Your task to perform on an android device: toggle pop-ups in chrome Image 0: 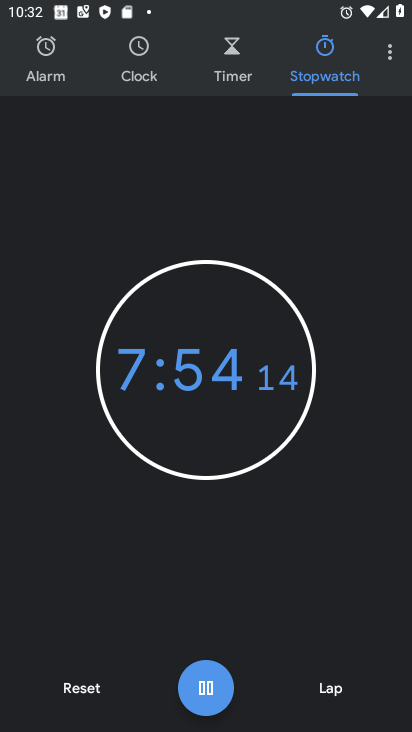
Step 0: click (85, 683)
Your task to perform on an android device: toggle pop-ups in chrome Image 1: 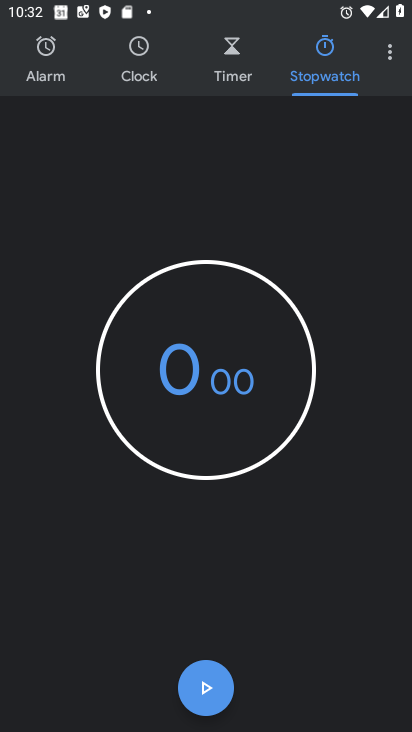
Step 1: press home button
Your task to perform on an android device: toggle pop-ups in chrome Image 2: 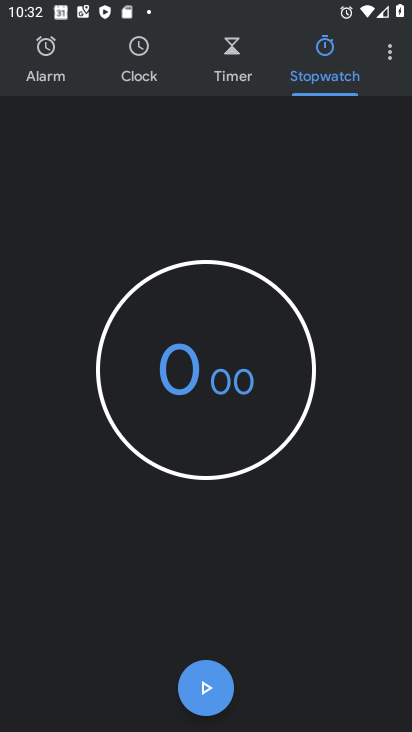
Step 2: press home button
Your task to perform on an android device: toggle pop-ups in chrome Image 3: 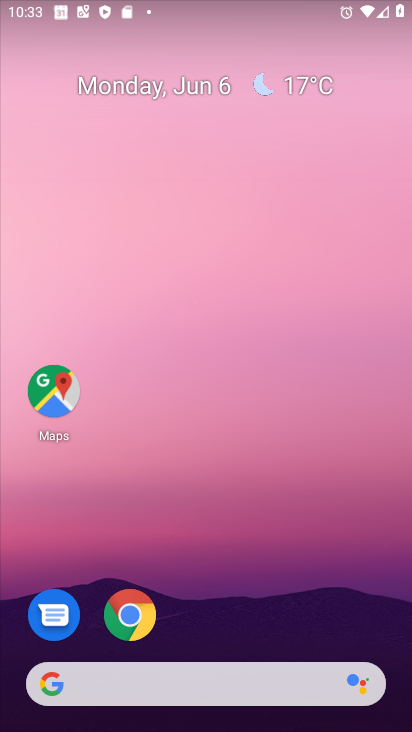
Step 3: click (128, 610)
Your task to perform on an android device: toggle pop-ups in chrome Image 4: 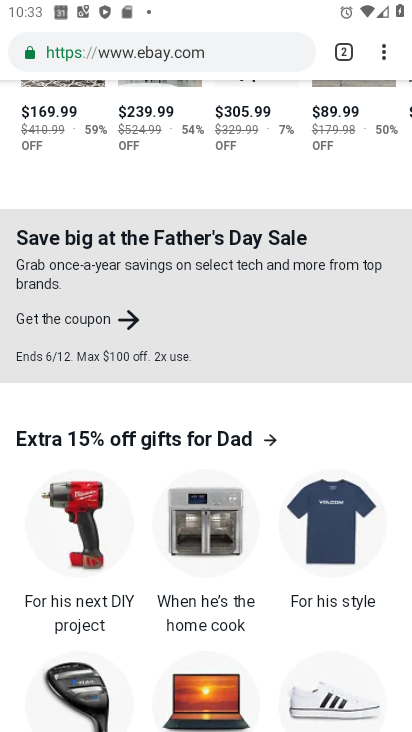
Step 4: click (388, 48)
Your task to perform on an android device: toggle pop-ups in chrome Image 5: 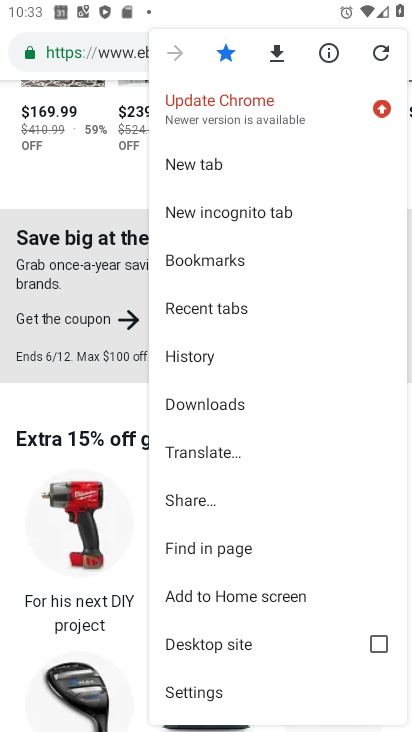
Step 5: click (244, 691)
Your task to perform on an android device: toggle pop-ups in chrome Image 6: 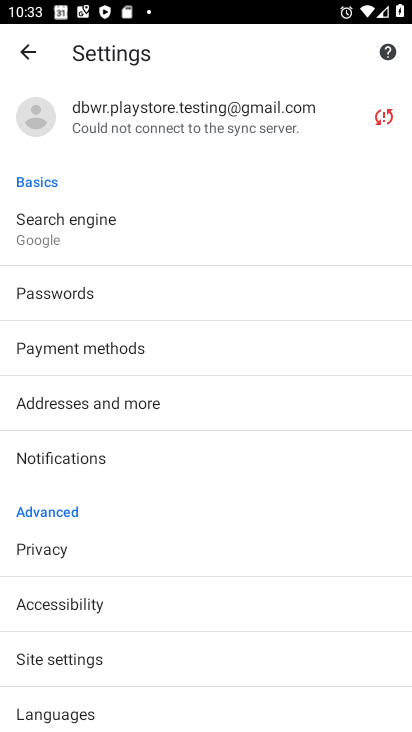
Step 6: click (135, 660)
Your task to perform on an android device: toggle pop-ups in chrome Image 7: 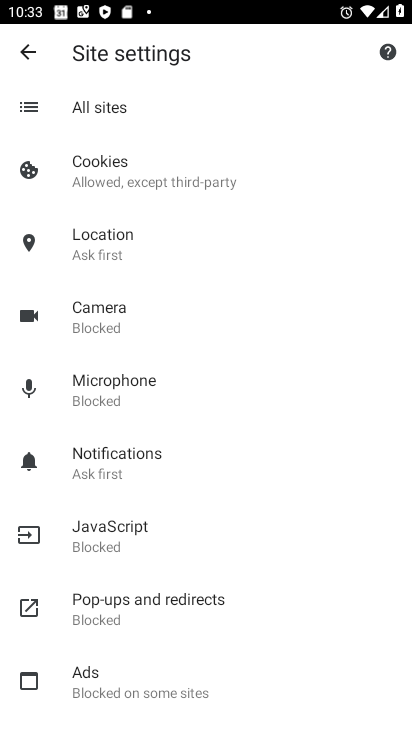
Step 7: click (150, 606)
Your task to perform on an android device: toggle pop-ups in chrome Image 8: 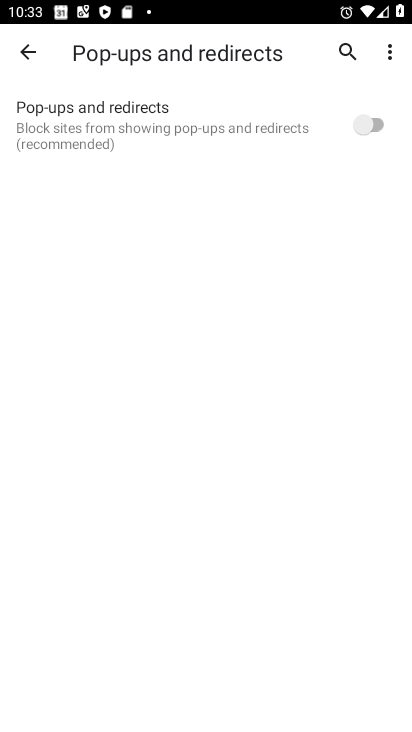
Step 8: click (374, 114)
Your task to perform on an android device: toggle pop-ups in chrome Image 9: 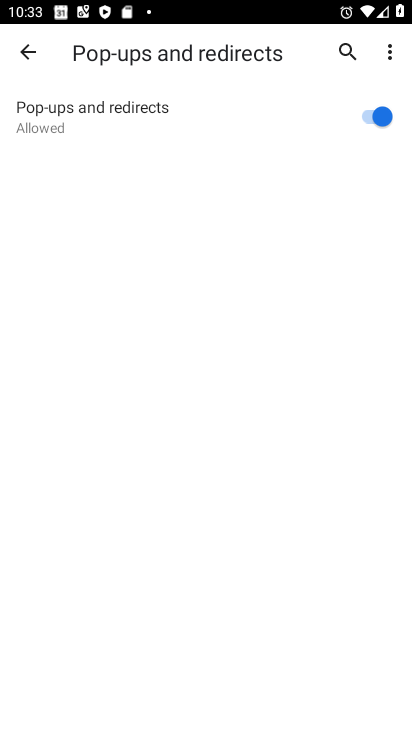
Step 9: task complete